Your task to perform on an android device: Add razer blackwidow to the cart on target Image 0: 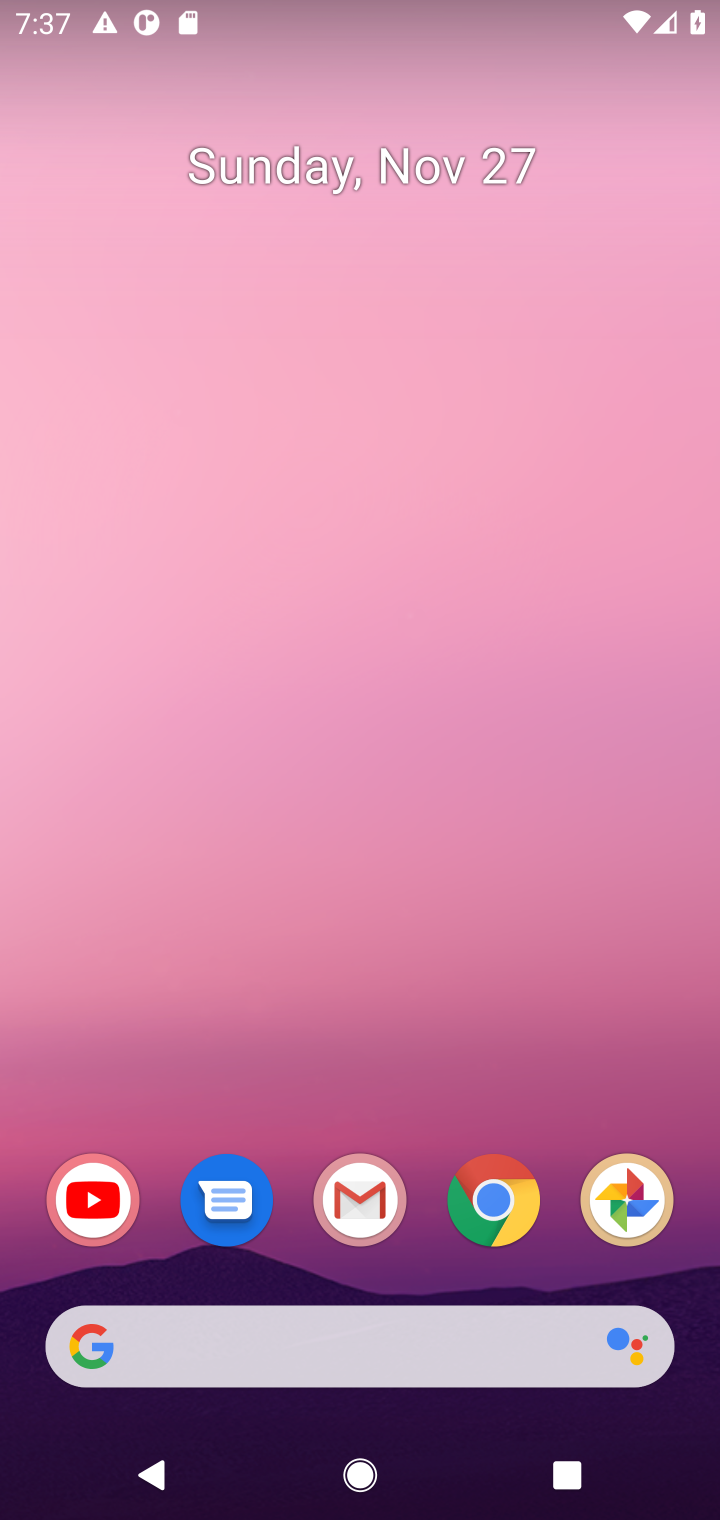
Step 0: click (513, 1218)
Your task to perform on an android device: Add razer blackwidow to the cart on target Image 1: 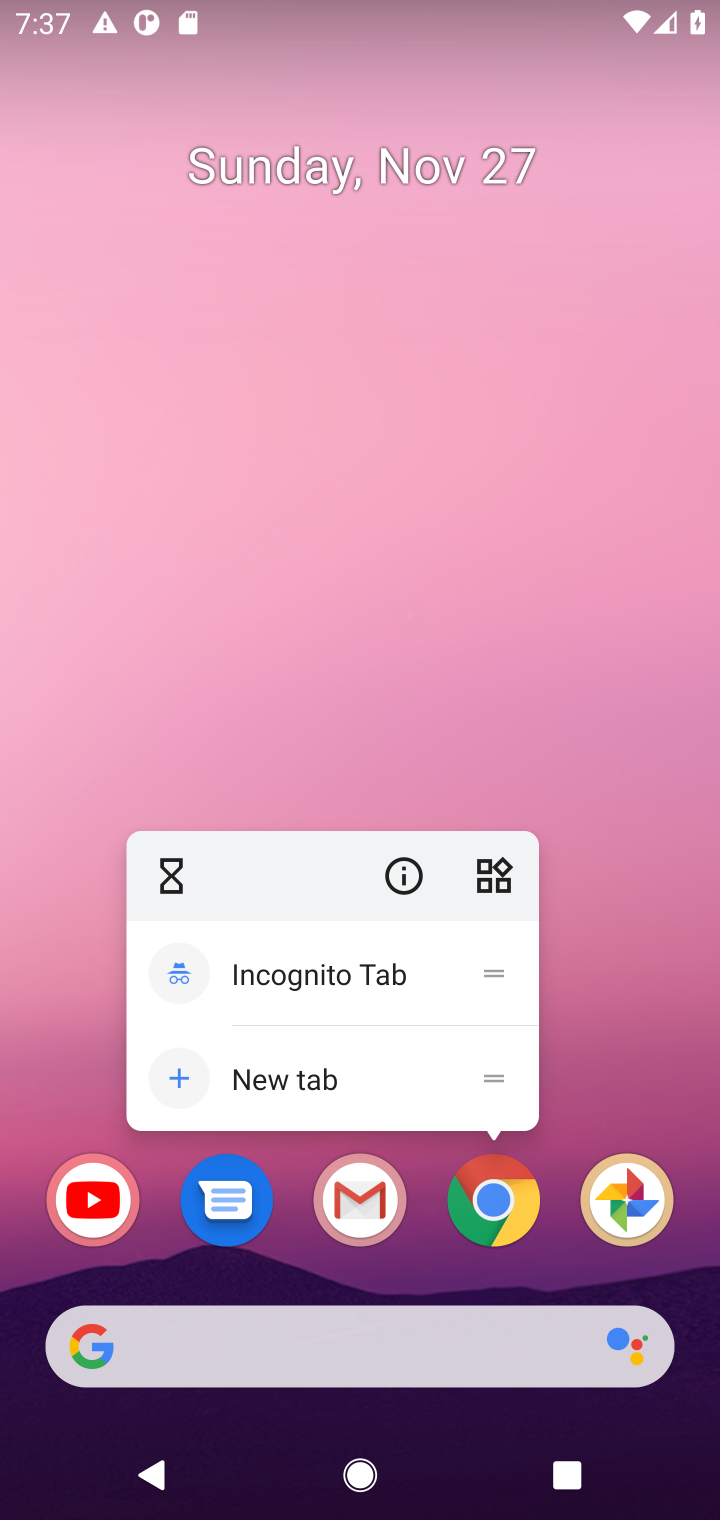
Step 1: click (506, 1218)
Your task to perform on an android device: Add razer blackwidow to the cart on target Image 2: 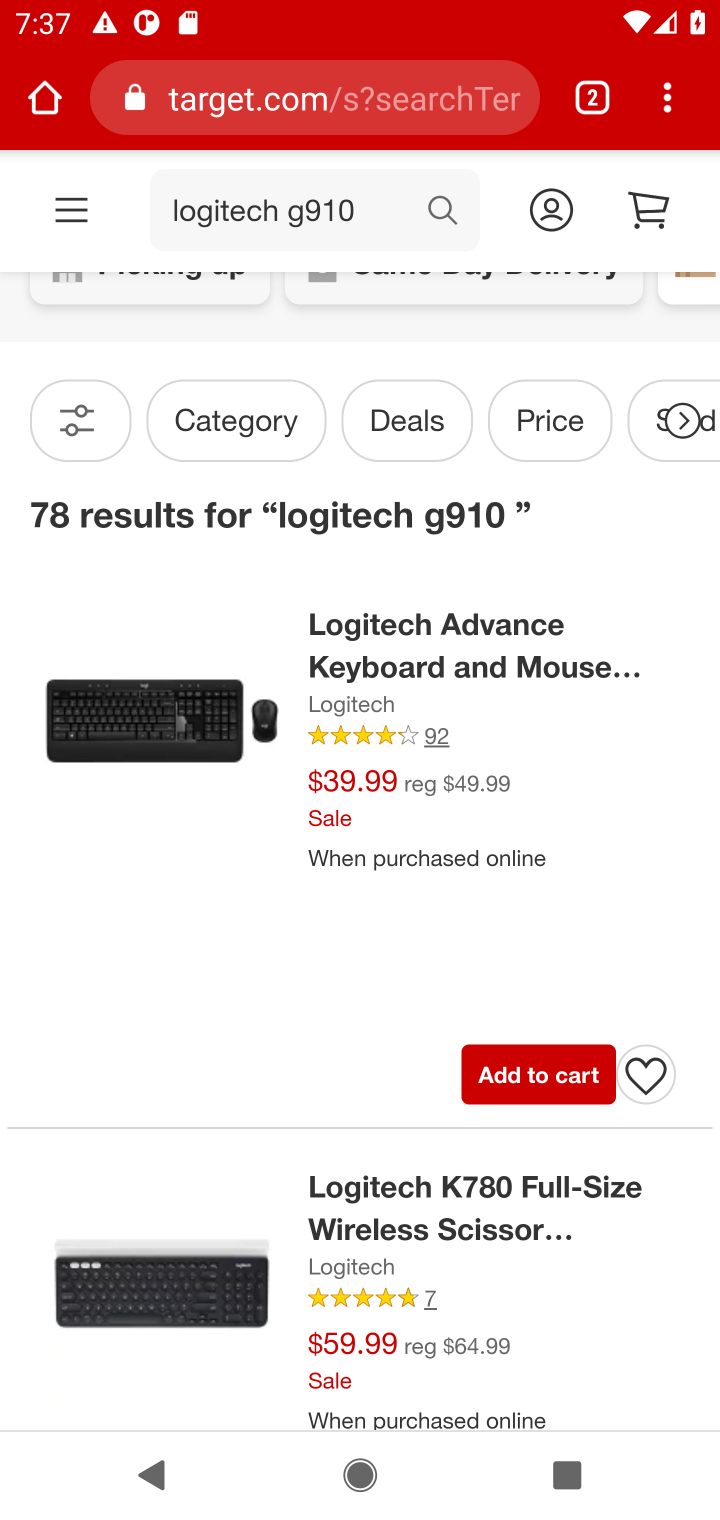
Step 2: click (438, 206)
Your task to perform on an android device: Add razer blackwidow to the cart on target Image 3: 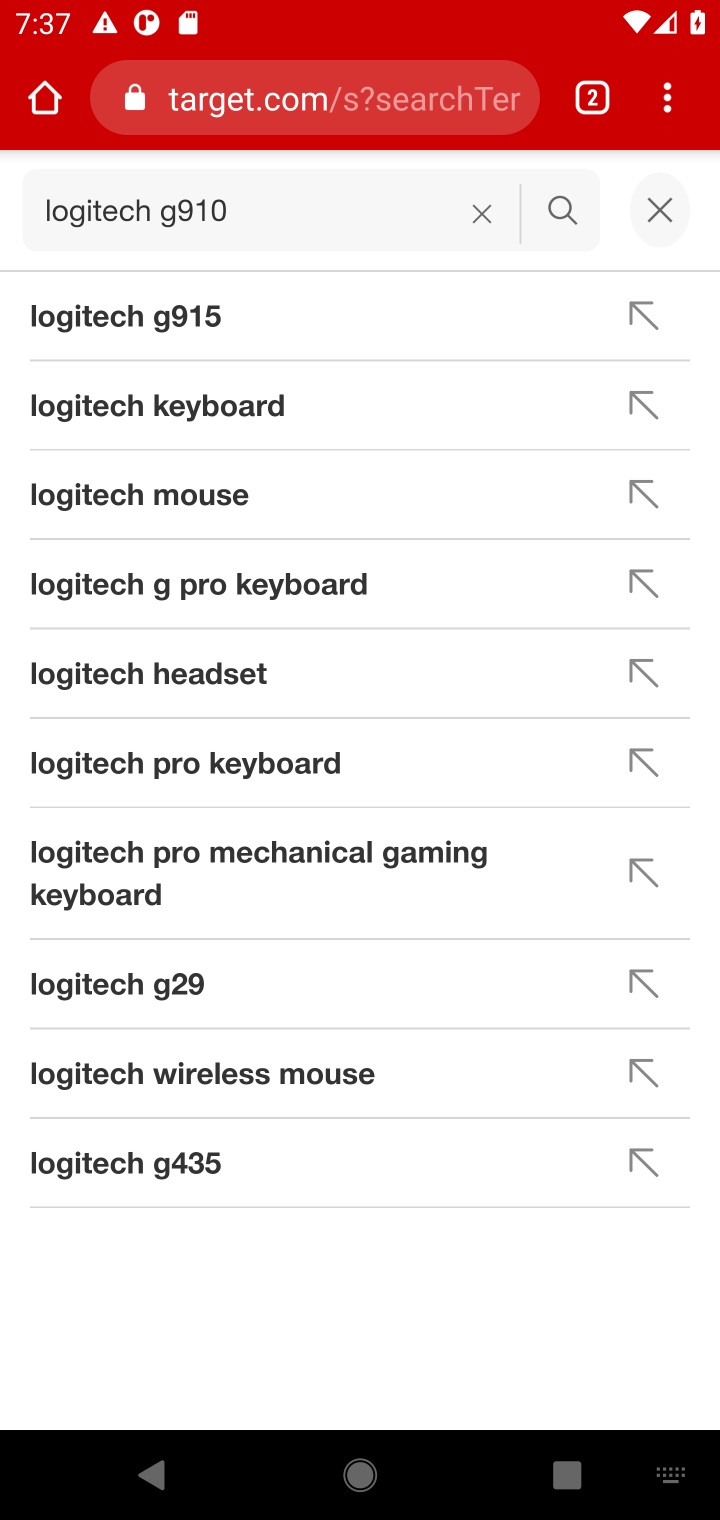
Step 3: click (486, 215)
Your task to perform on an android device: Add razer blackwidow to the cart on target Image 4: 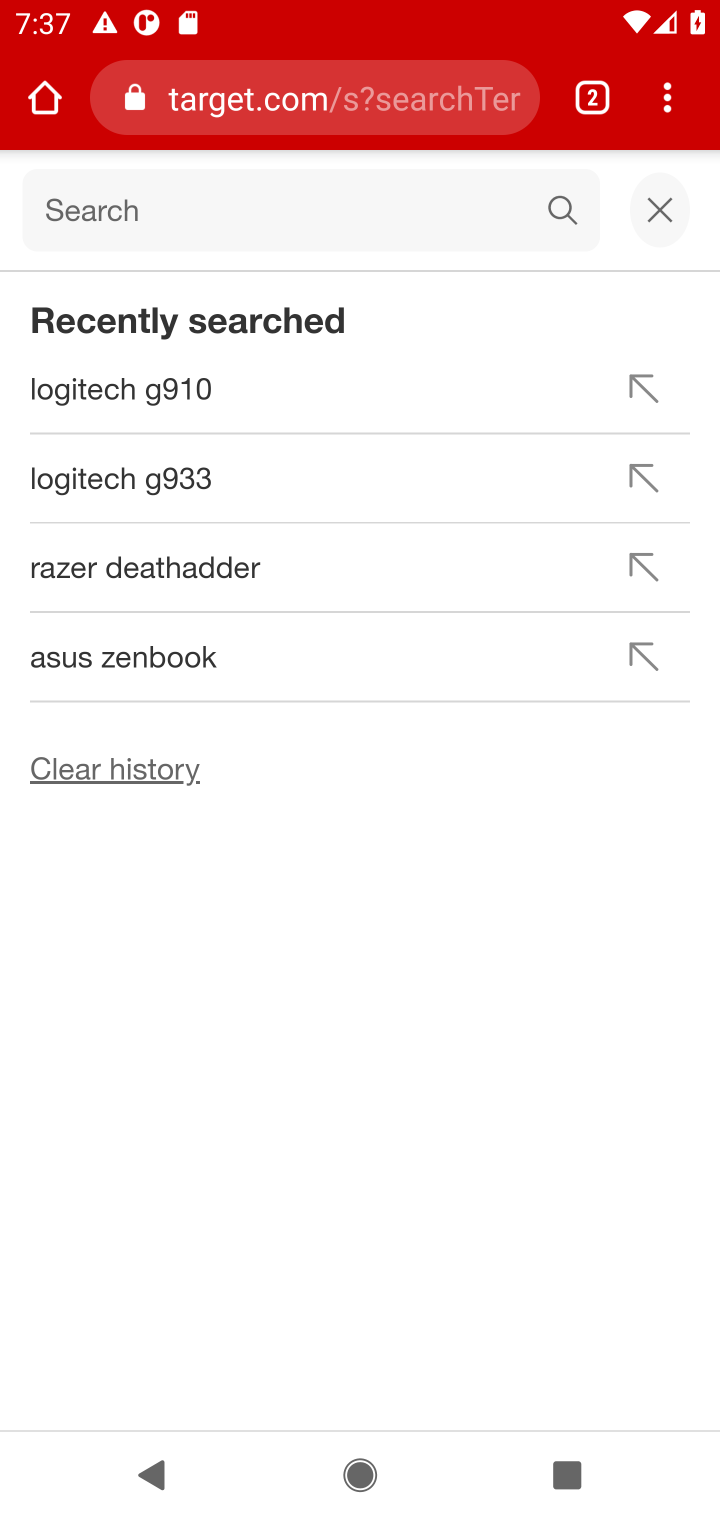
Step 4: type " razer blackwidow "
Your task to perform on an android device: Add razer blackwidow to the cart on target Image 5: 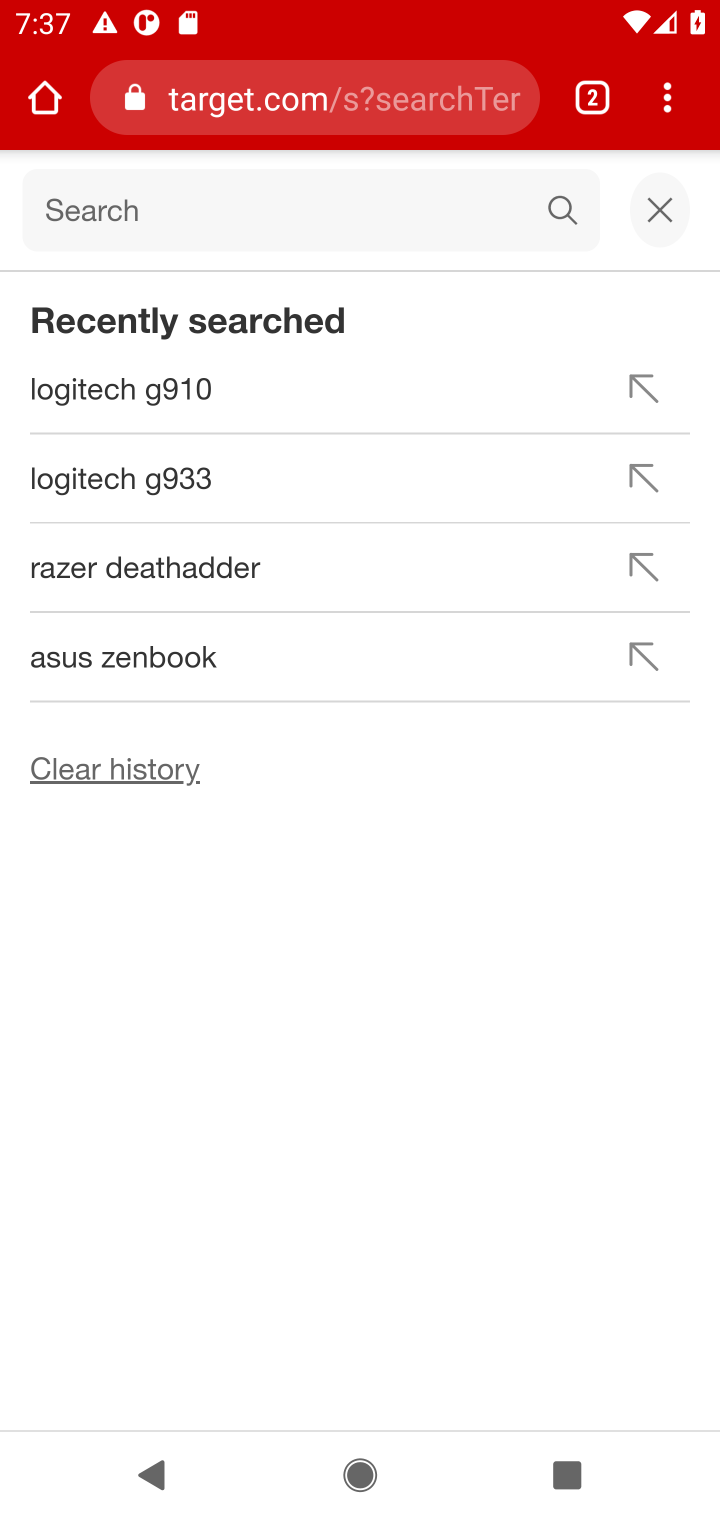
Step 5: click (177, 204)
Your task to perform on an android device: Add razer blackwidow to the cart on target Image 6: 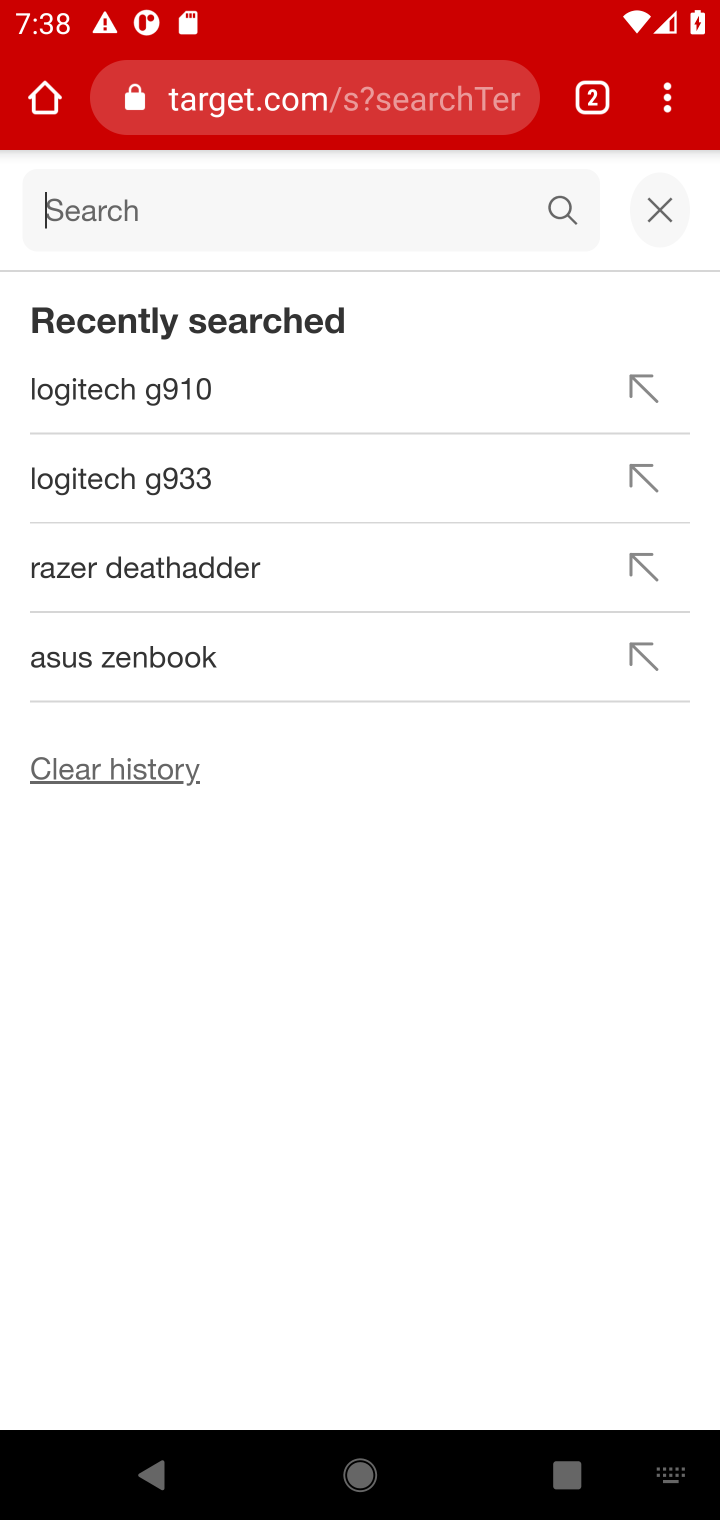
Step 6: type " razer blackwidow "
Your task to perform on an android device: Add razer blackwidow to the cart on target Image 7: 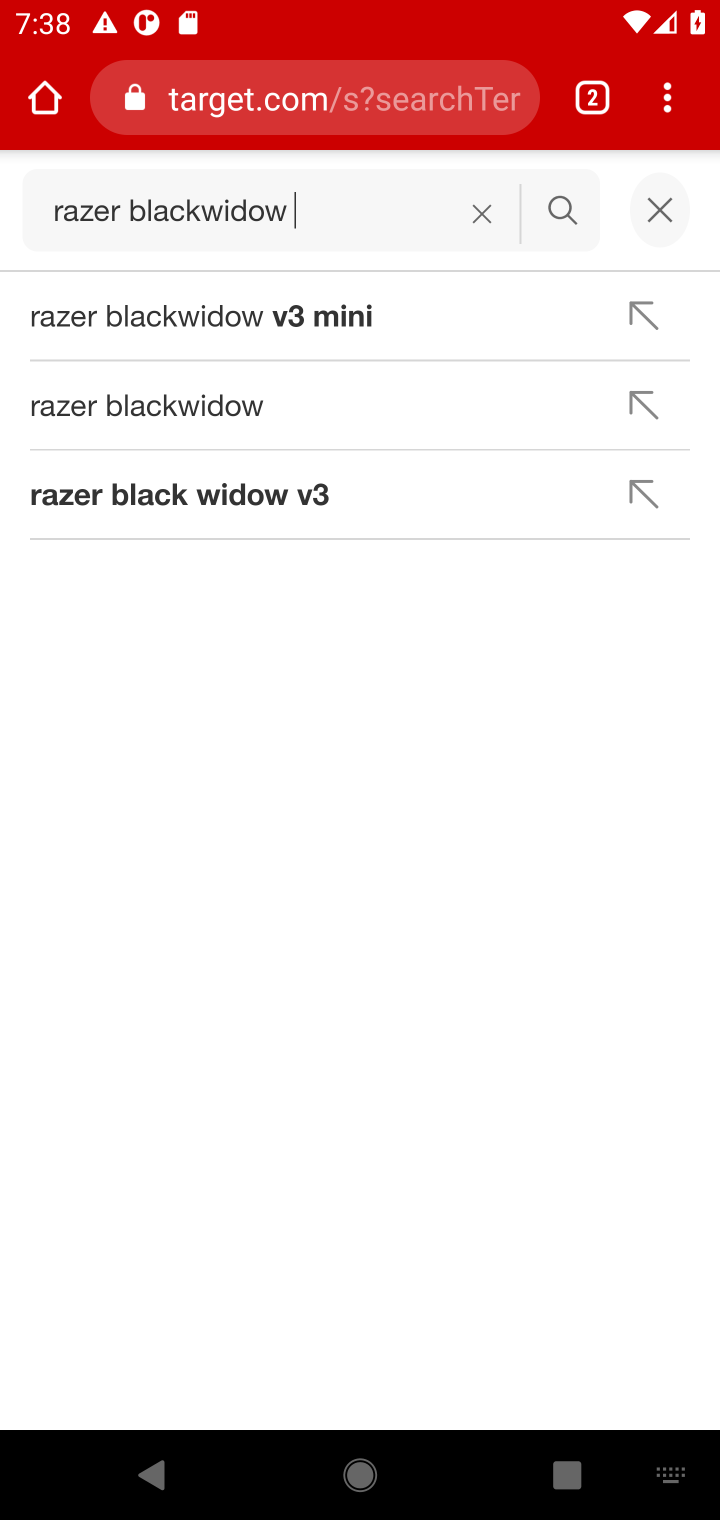
Step 7: click (190, 410)
Your task to perform on an android device: Add razer blackwidow to the cart on target Image 8: 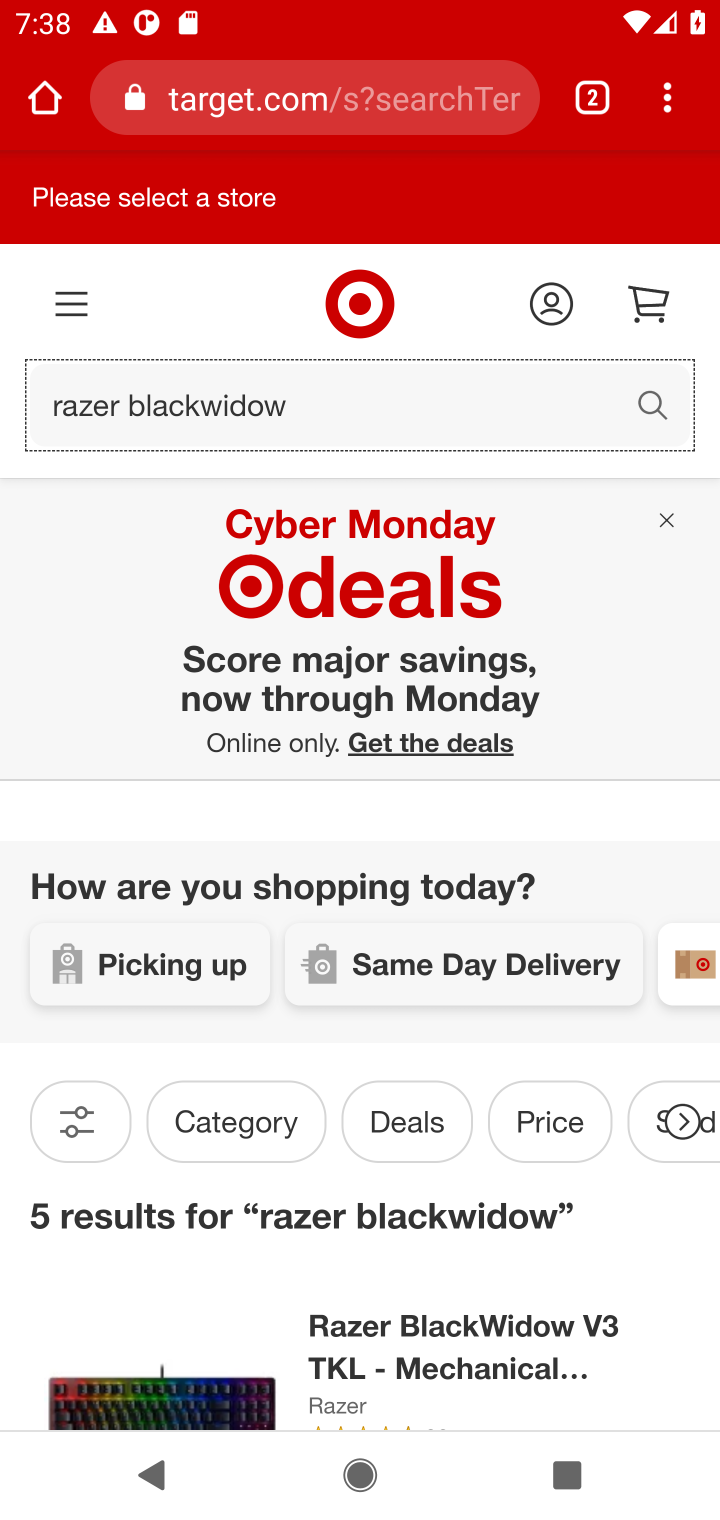
Step 8: drag from (321, 787) to (280, 334)
Your task to perform on an android device: Add razer blackwidow to the cart on target Image 9: 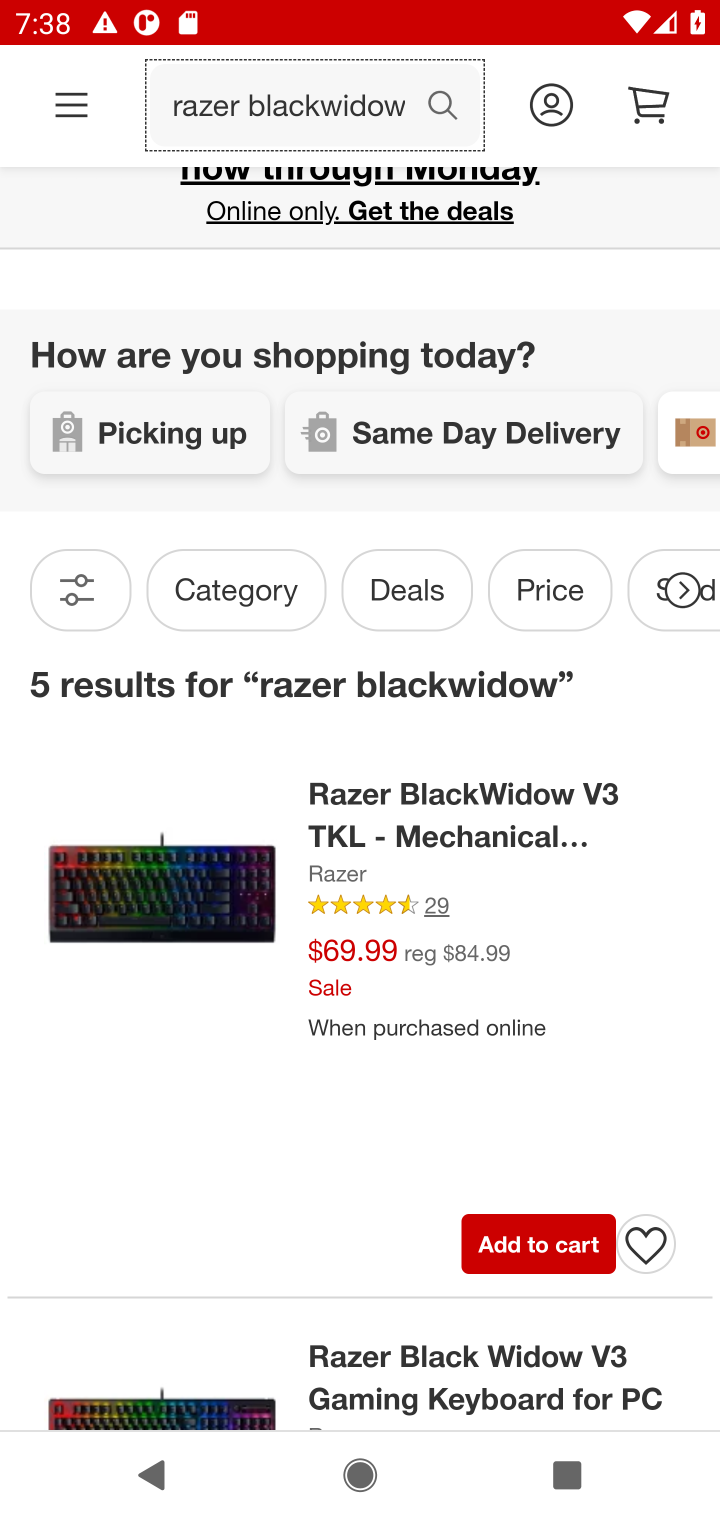
Step 9: click (555, 1256)
Your task to perform on an android device: Add razer blackwidow to the cart on target Image 10: 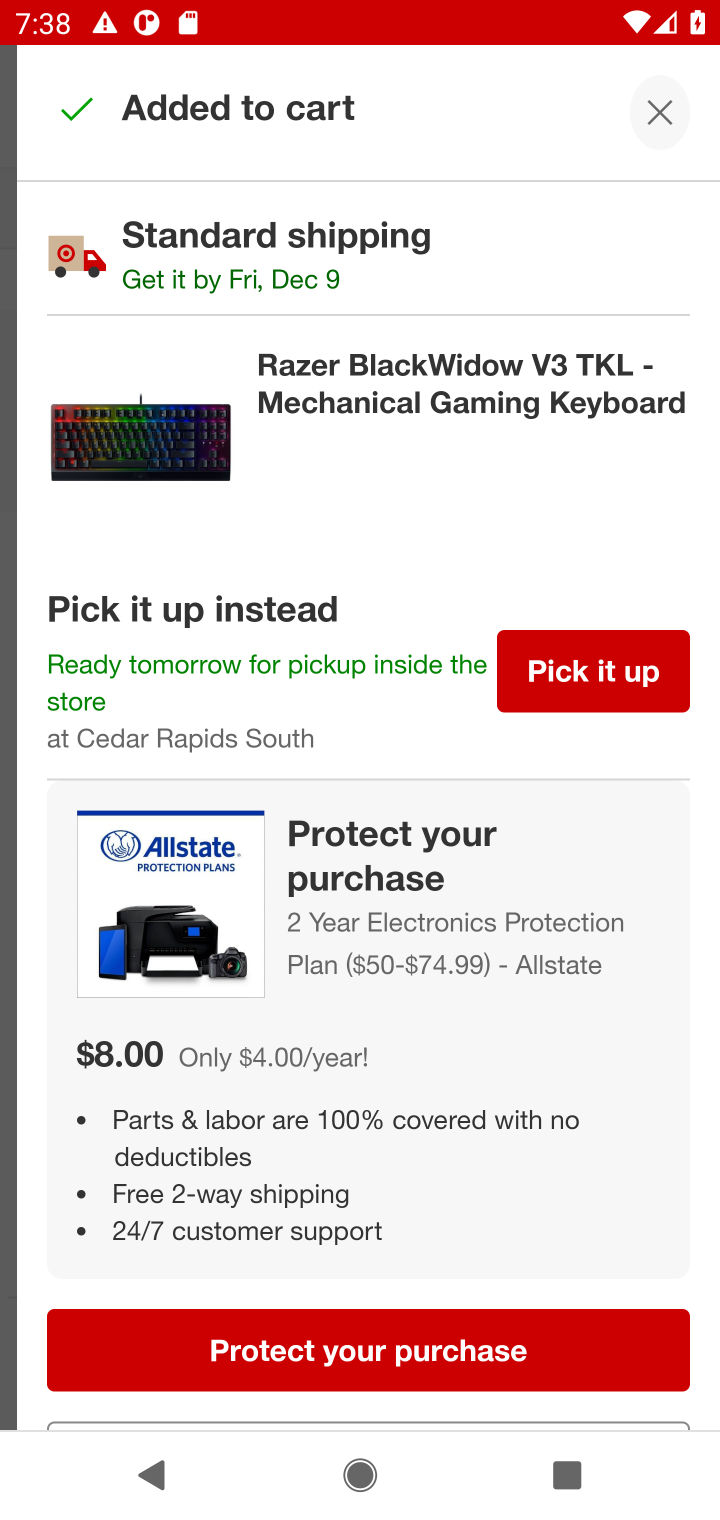
Step 10: task complete